Your task to perform on an android device: open the mobile data screen to see how much data has been used Image 0: 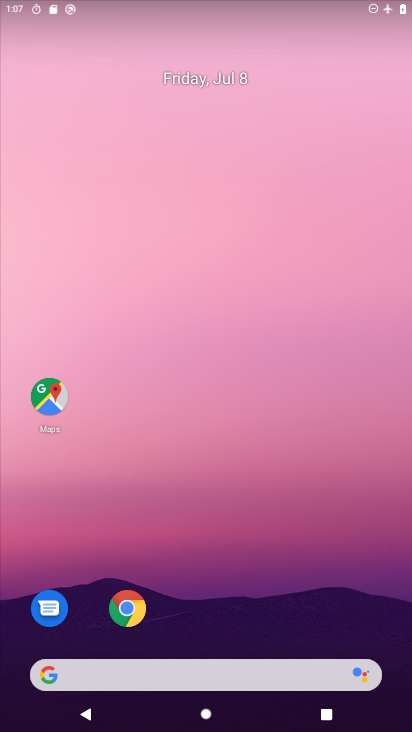
Step 0: drag from (245, 717) to (232, 67)
Your task to perform on an android device: open the mobile data screen to see how much data has been used Image 1: 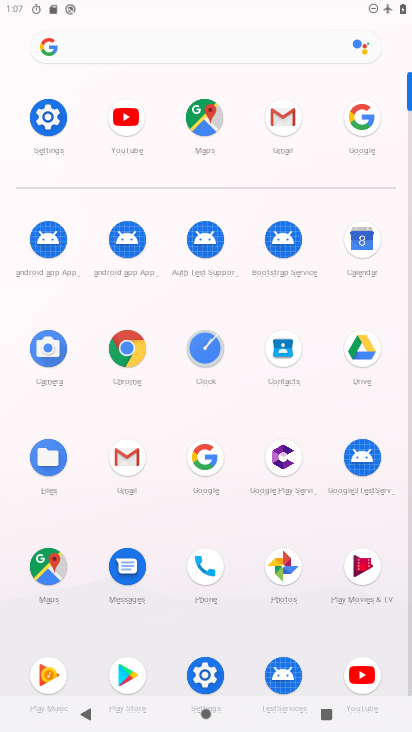
Step 1: click (52, 117)
Your task to perform on an android device: open the mobile data screen to see how much data has been used Image 2: 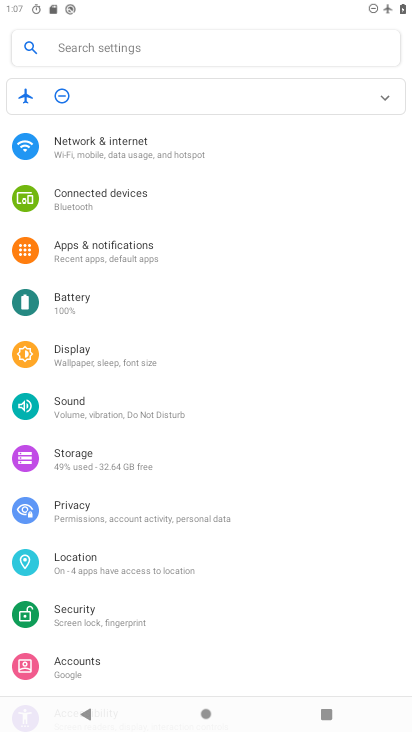
Step 2: click (96, 144)
Your task to perform on an android device: open the mobile data screen to see how much data has been used Image 3: 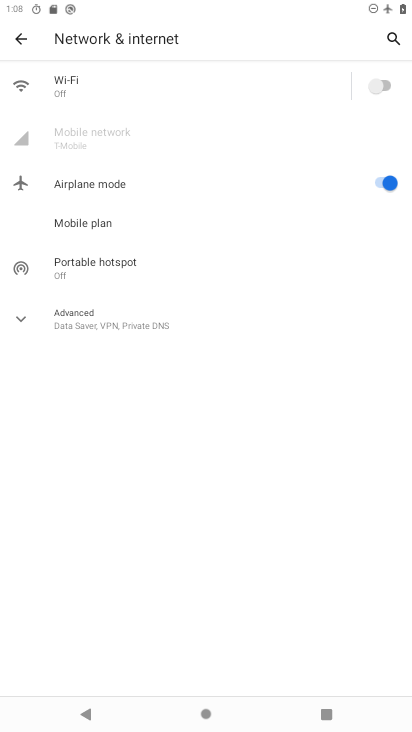
Step 3: click (377, 182)
Your task to perform on an android device: open the mobile data screen to see how much data has been used Image 4: 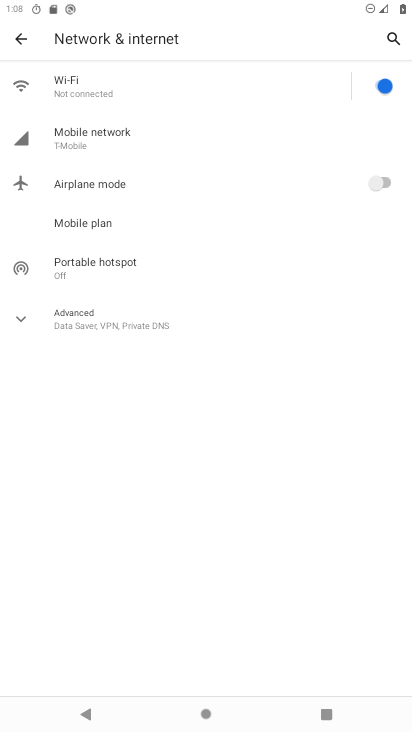
Step 4: click (89, 132)
Your task to perform on an android device: open the mobile data screen to see how much data has been used Image 5: 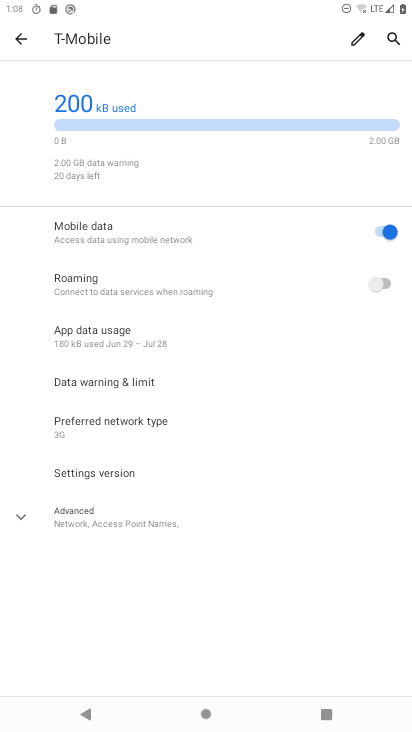
Step 5: click (85, 339)
Your task to perform on an android device: open the mobile data screen to see how much data has been used Image 6: 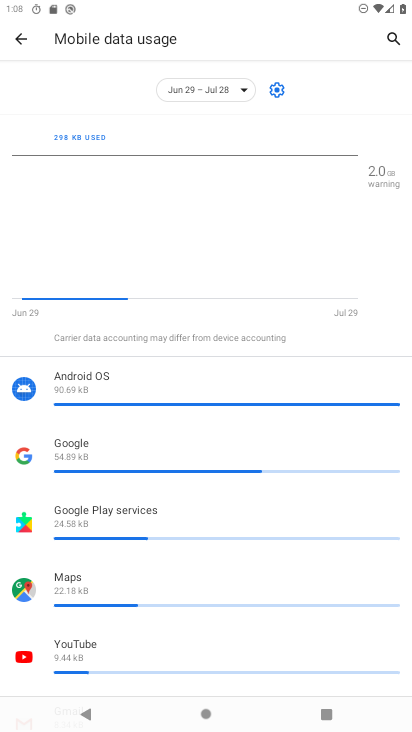
Step 6: task complete